Your task to perform on an android device: create a new album in the google photos Image 0: 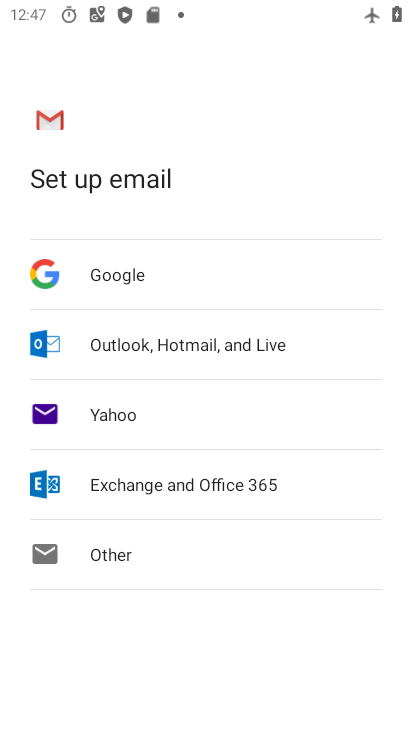
Step 0: press home button
Your task to perform on an android device: create a new album in the google photos Image 1: 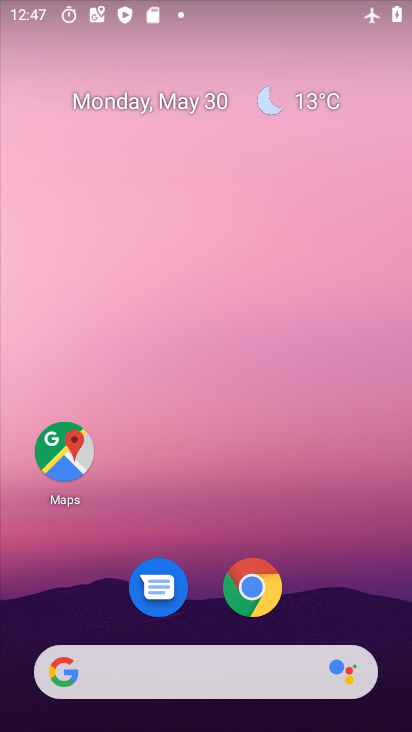
Step 1: drag from (328, 483) to (292, 52)
Your task to perform on an android device: create a new album in the google photos Image 2: 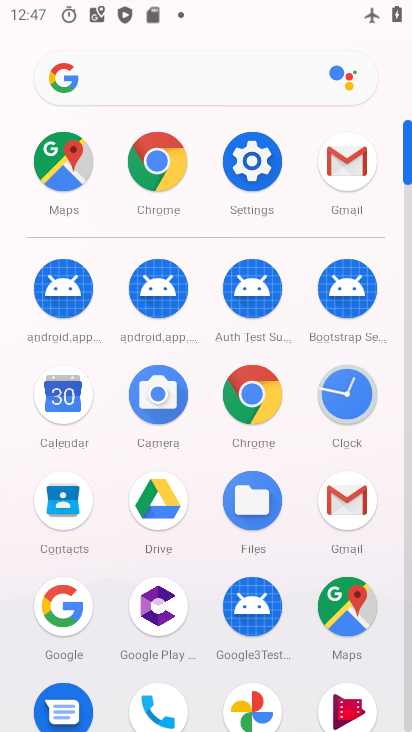
Step 2: click (260, 701)
Your task to perform on an android device: create a new album in the google photos Image 3: 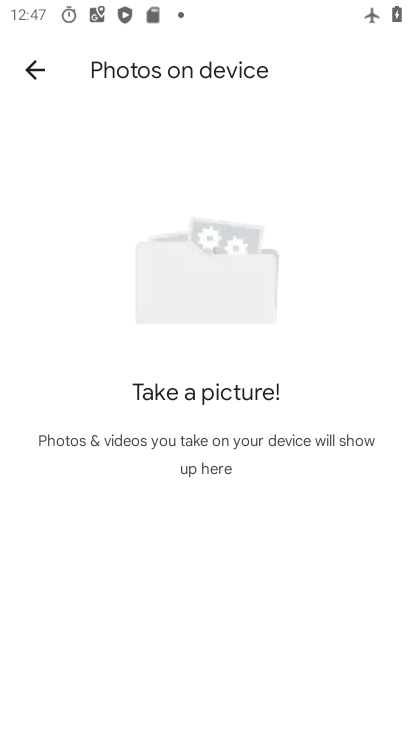
Step 3: click (58, 67)
Your task to perform on an android device: create a new album in the google photos Image 4: 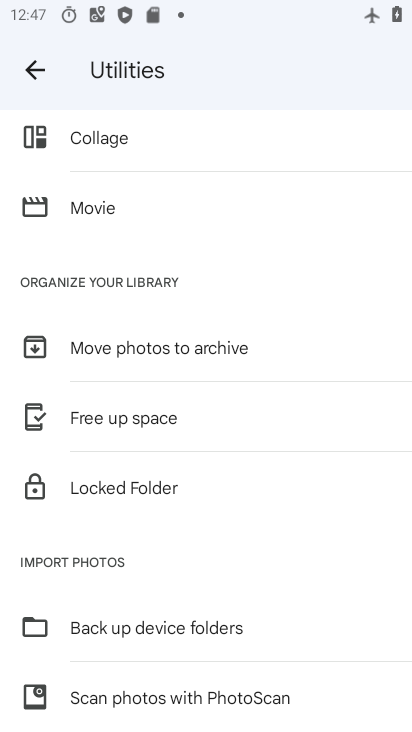
Step 4: click (23, 79)
Your task to perform on an android device: create a new album in the google photos Image 5: 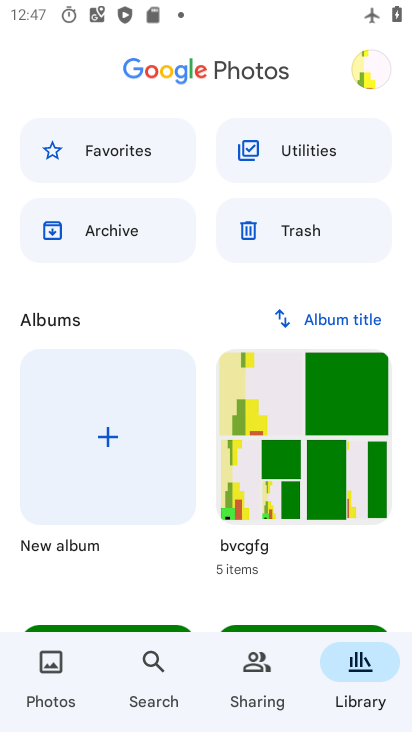
Step 5: click (54, 683)
Your task to perform on an android device: create a new album in the google photos Image 6: 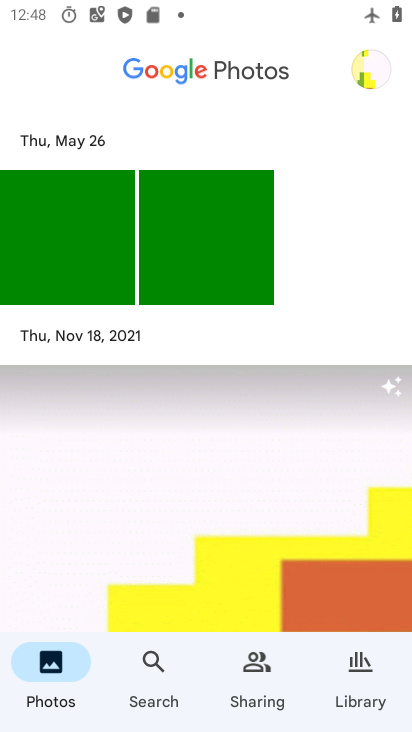
Step 6: click (349, 682)
Your task to perform on an android device: create a new album in the google photos Image 7: 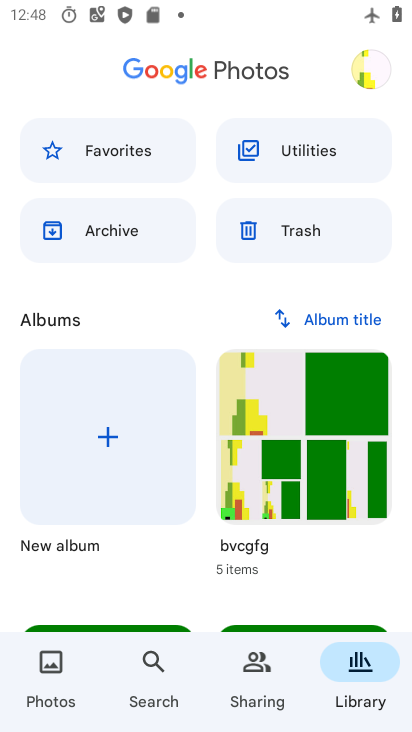
Step 7: click (146, 460)
Your task to perform on an android device: create a new album in the google photos Image 8: 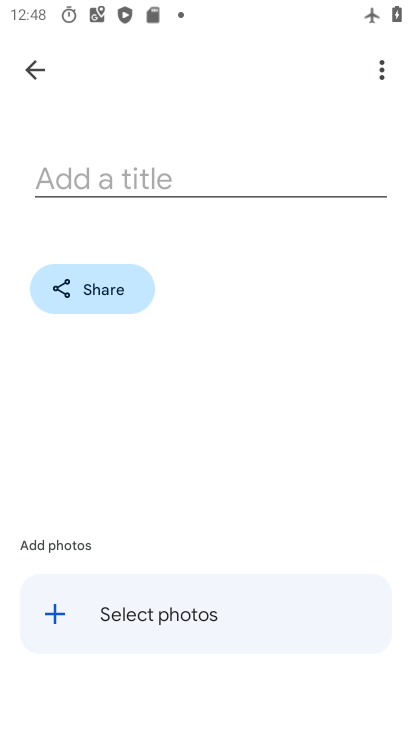
Step 8: click (186, 172)
Your task to perform on an android device: create a new album in the google photos Image 9: 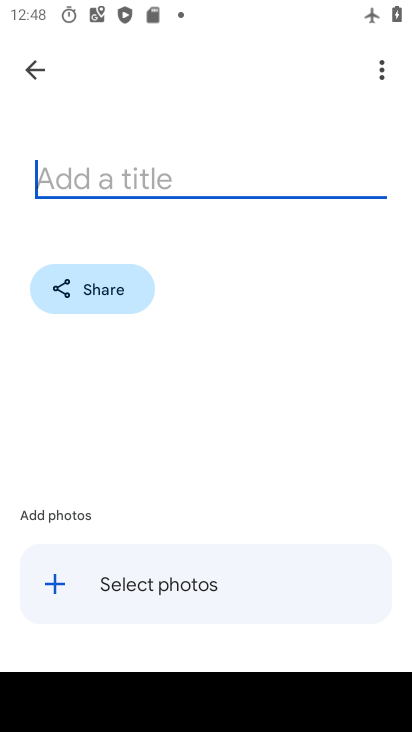
Step 9: type "gakka'"
Your task to perform on an android device: create a new album in the google photos Image 10: 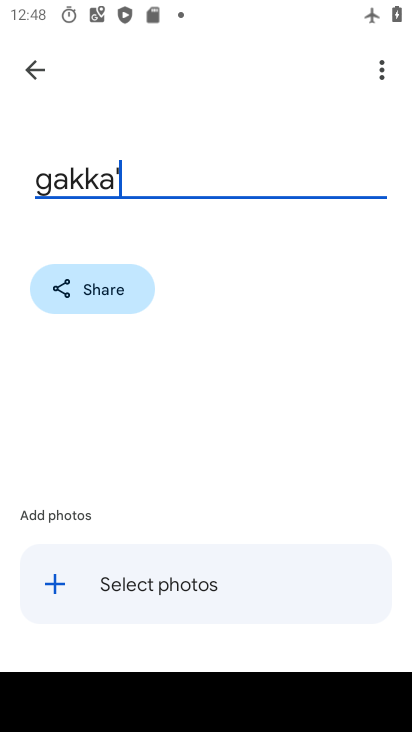
Step 10: type ""
Your task to perform on an android device: create a new album in the google photos Image 11: 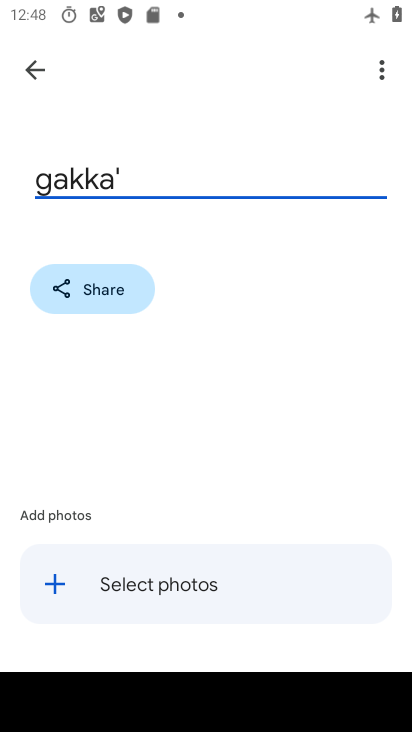
Step 11: click (93, 293)
Your task to perform on an android device: create a new album in the google photos Image 12: 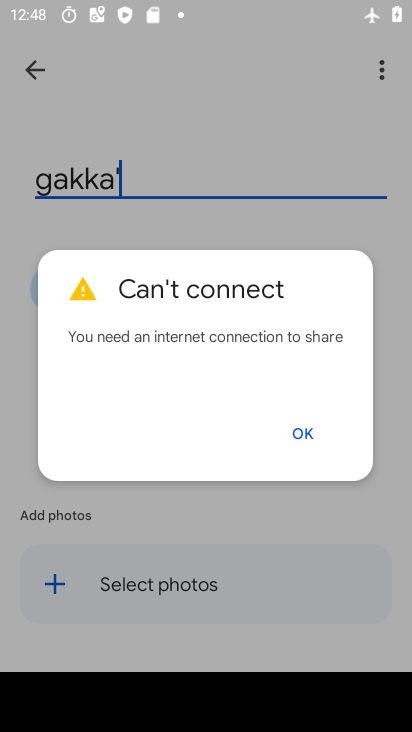
Step 12: click (313, 446)
Your task to perform on an android device: create a new album in the google photos Image 13: 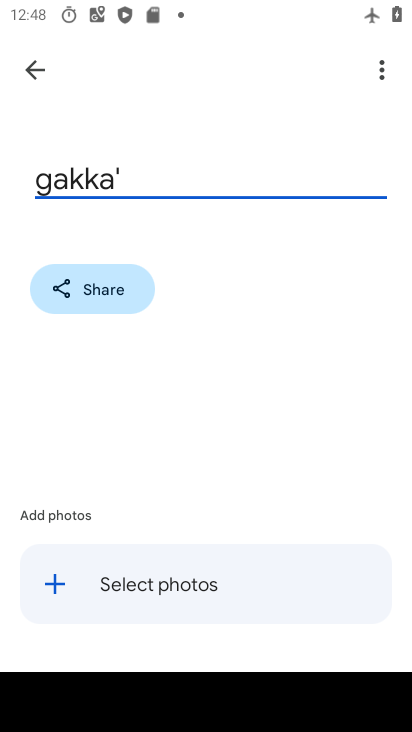
Step 13: click (170, 586)
Your task to perform on an android device: create a new album in the google photos Image 14: 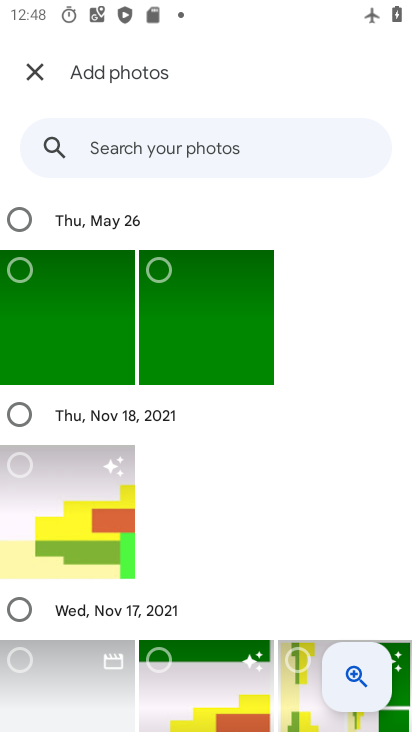
Step 14: click (59, 336)
Your task to perform on an android device: create a new album in the google photos Image 15: 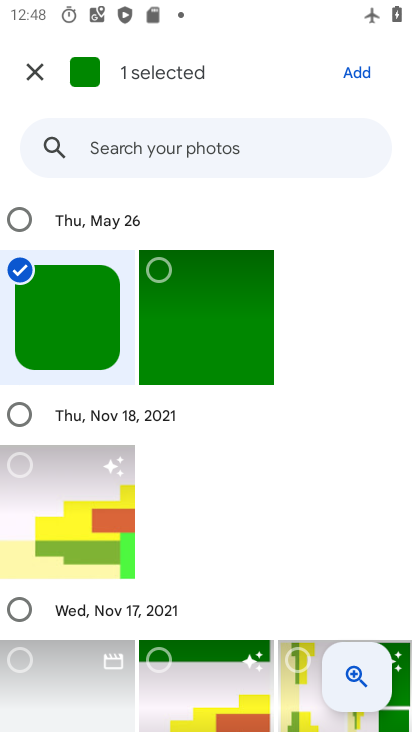
Step 15: click (359, 72)
Your task to perform on an android device: create a new album in the google photos Image 16: 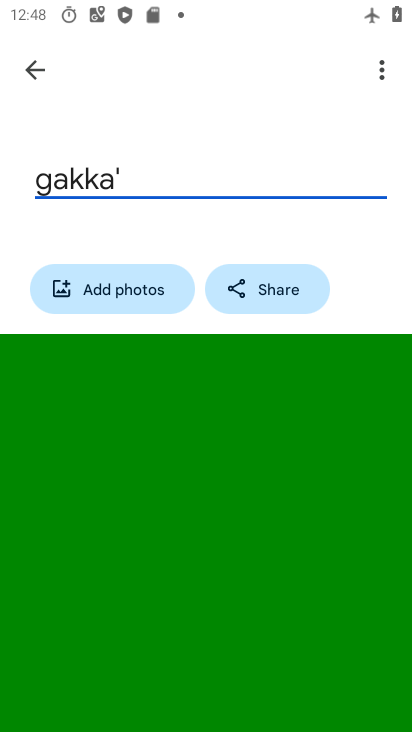
Step 16: drag from (256, 568) to (289, 104)
Your task to perform on an android device: create a new album in the google photos Image 17: 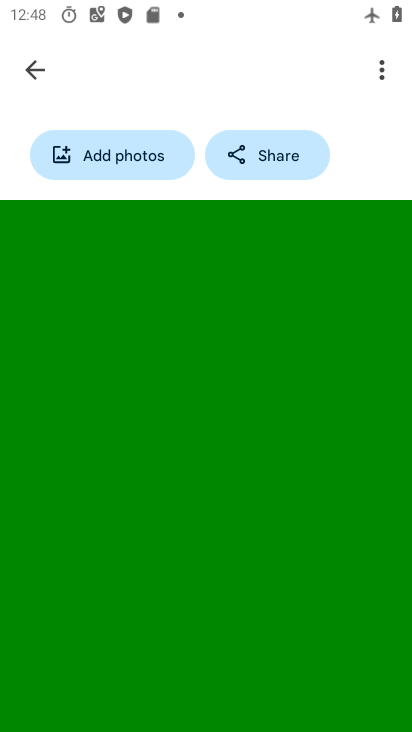
Step 17: press enter
Your task to perform on an android device: create a new album in the google photos Image 18: 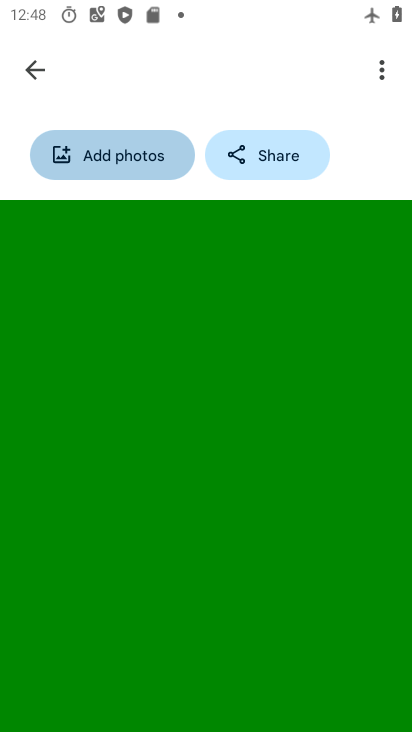
Step 18: click (344, 177)
Your task to perform on an android device: create a new album in the google photos Image 19: 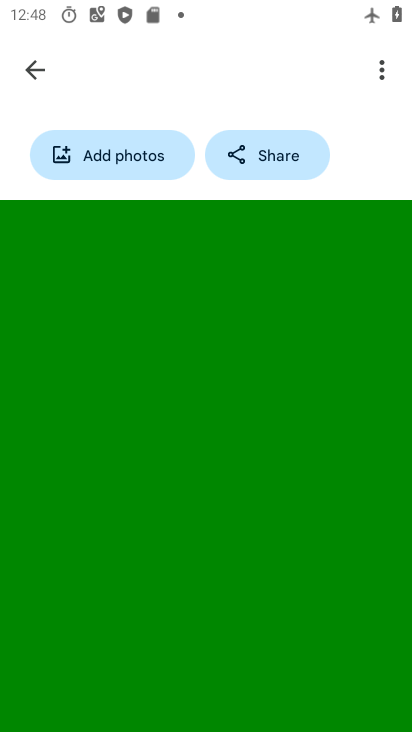
Step 19: click (363, 381)
Your task to perform on an android device: create a new album in the google photos Image 20: 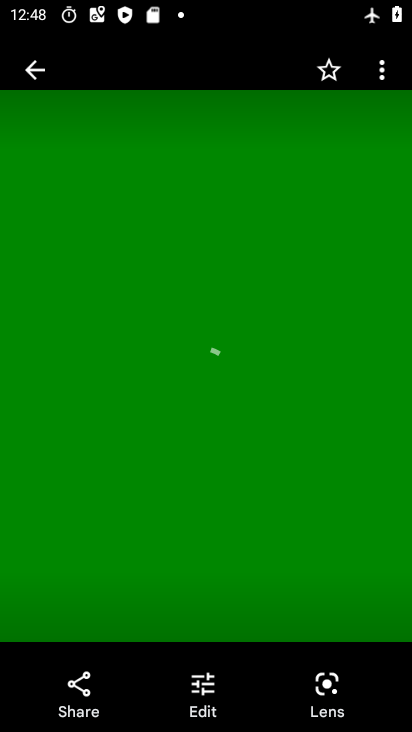
Step 20: press enter
Your task to perform on an android device: create a new album in the google photos Image 21: 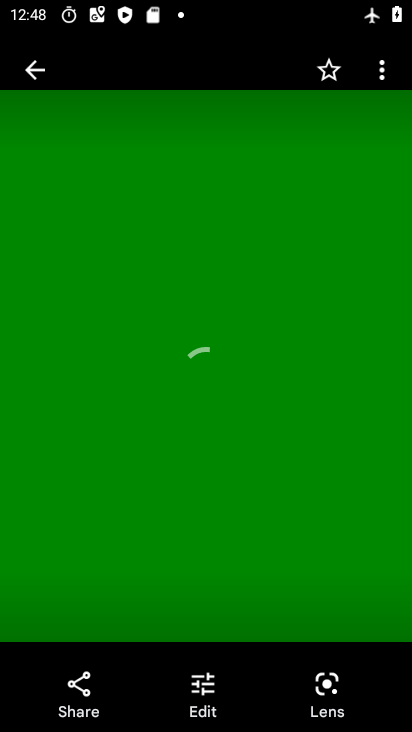
Step 21: press enter
Your task to perform on an android device: create a new album in the google photos Image 22: 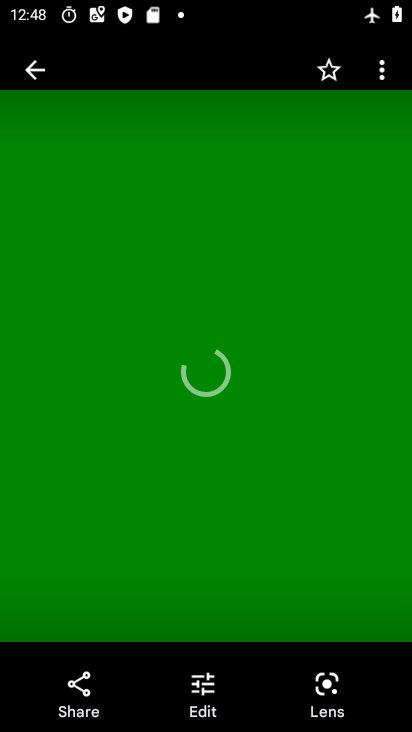
Step 22: click (24, 69)
Your task to perform on an android device: create a new album in the google photos Image 23: 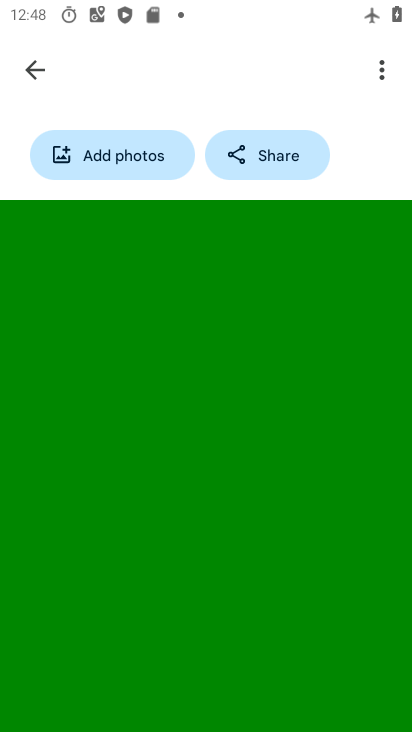
Step 23: click (24, 69)
Your task to perform on an android device: create a new album in the google photos Image 24: 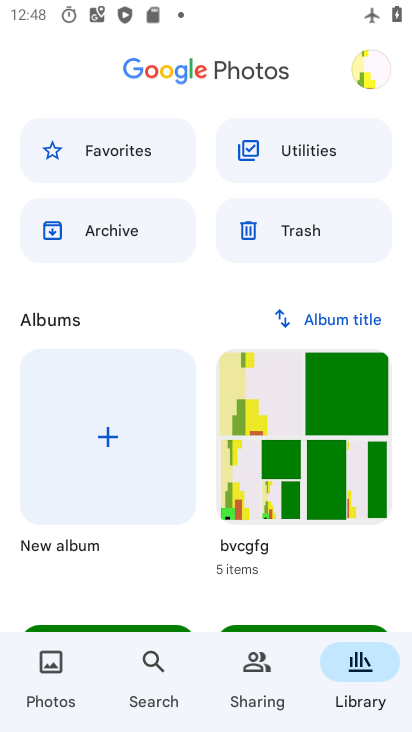
Step 24: task complete